Your task to perform on an android device: Search for seafood restaurants on Google Maps Image 0: 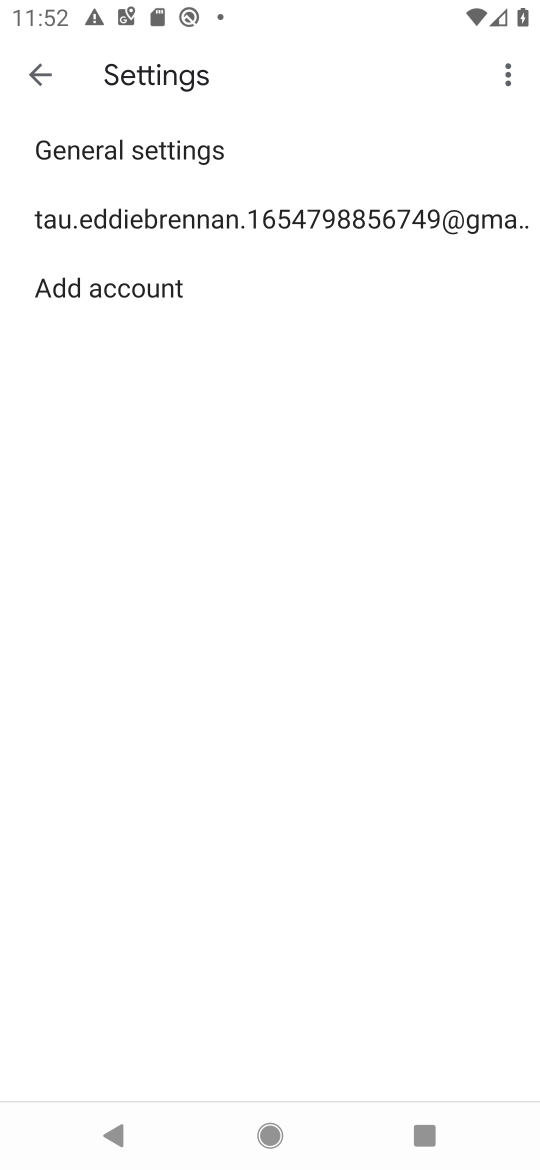
Step 0: press home button
Your task to perform on an android device: Search for seafood restaurants on Google Maps Image 1: 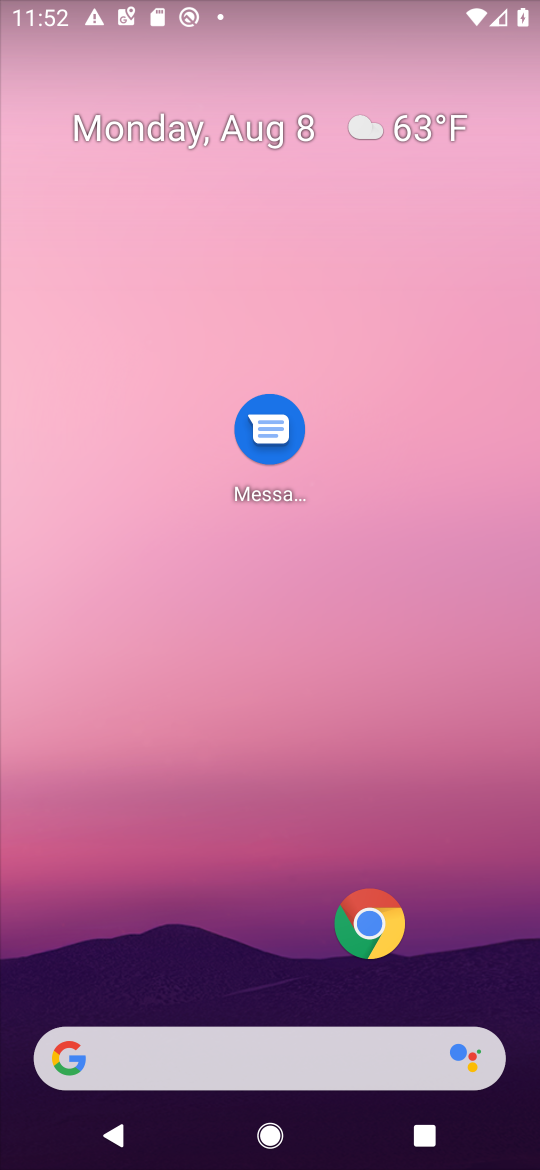
Step 1: task complete